Your task to perform on an android device: turn notification dots off Image 0: 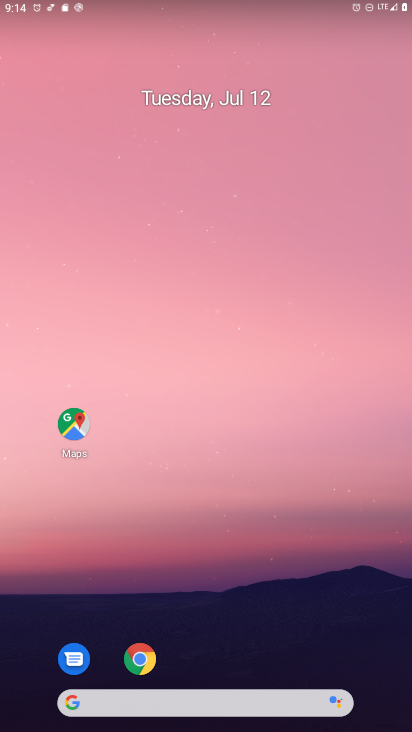
Step 0: drag from (187, 698) to (209, 152)
Your task to perform on an android device: turn notification dots off Image 1: 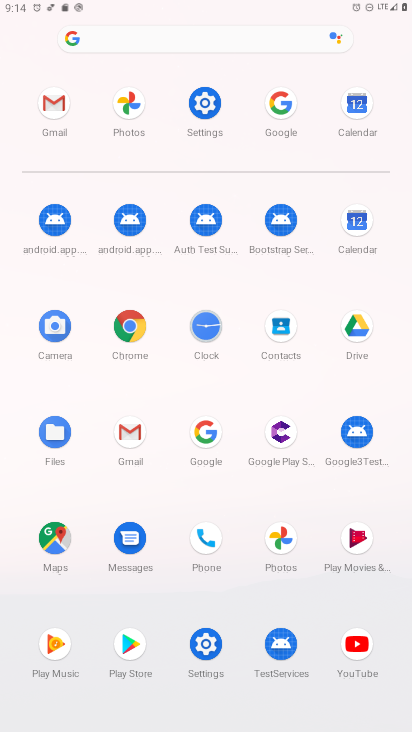
Step 1: click (205, 103)
Your task to perform on an android device: turn notification dots off Image 2: 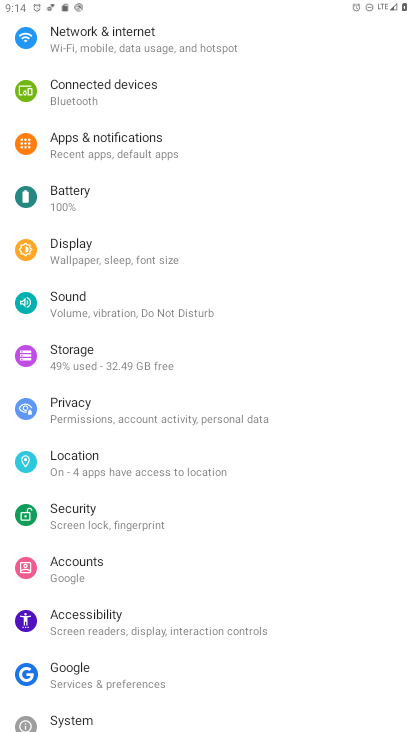
Step 2: click (157, 149)
Your task to perform on an android device: turn notification dots off Image 3: 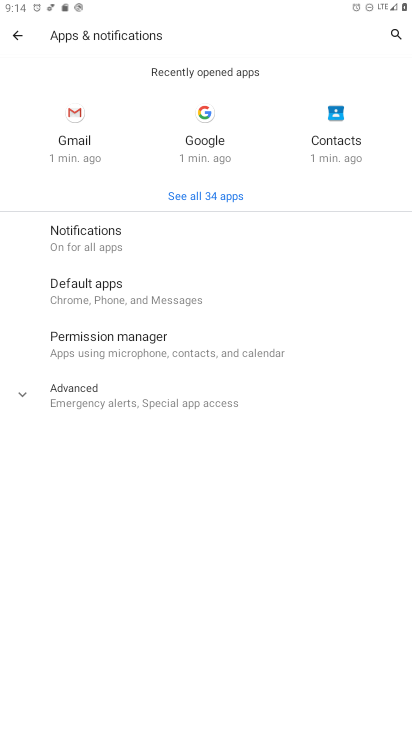
Step 3: click (102, 237)
Your task to perform on an android device: turn notification dots off Image 4: 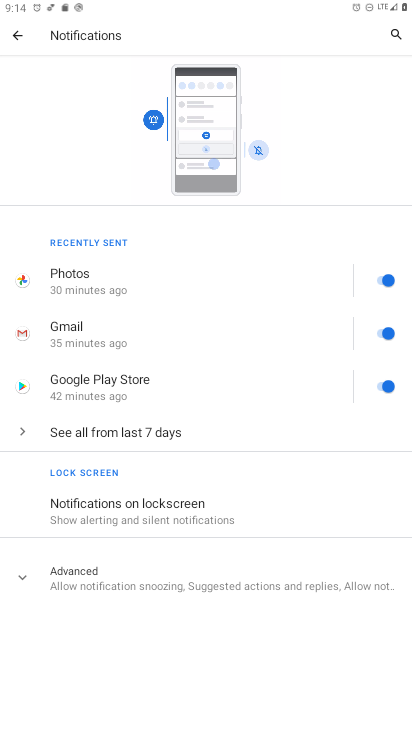
Step 4: click (109, 583)
Your task to perform on an android device: turn notification dots off Image 5: 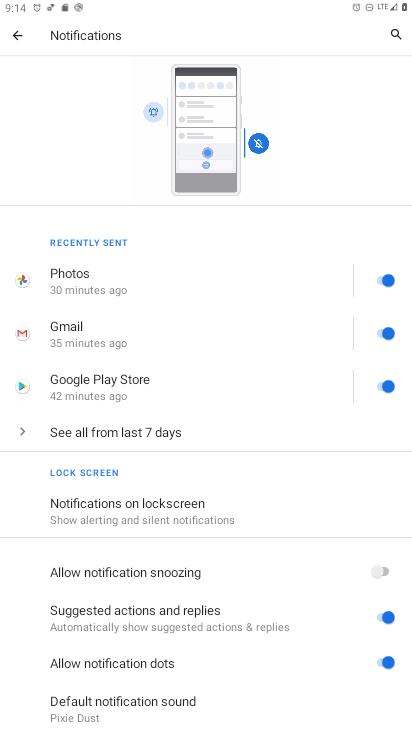
Step 5: click (383, 657)
Your task to perform on an android device: turn notification dots off Image 6: 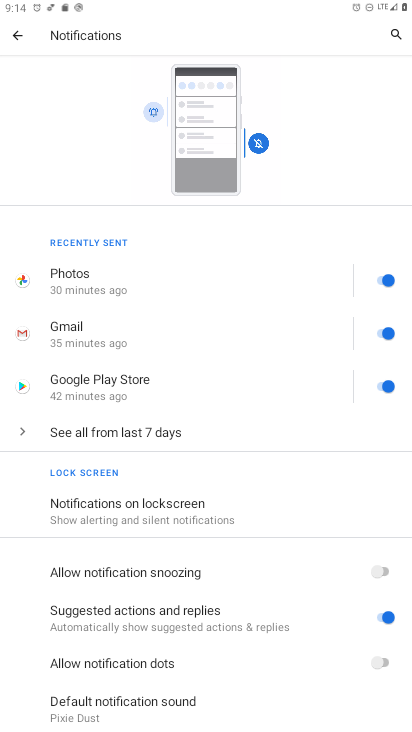
Step 6: task complete